Your task to perform on an android device: change the upload size in google photos Image 0: 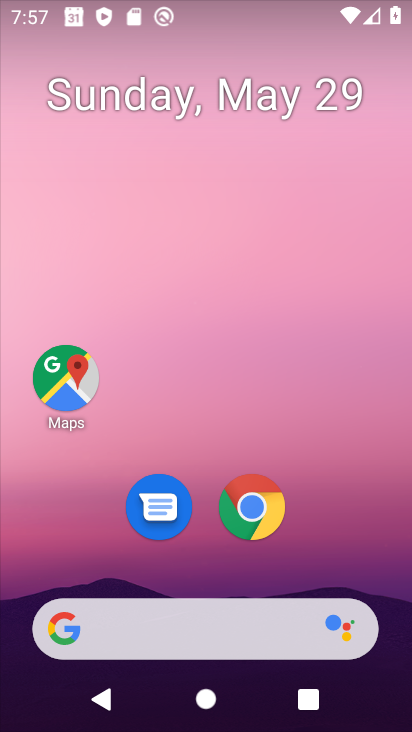
Step 0: drag from (385, 524) to (336, 80)
Your task to perform on an android device: change the upload size in google photos Image 1: 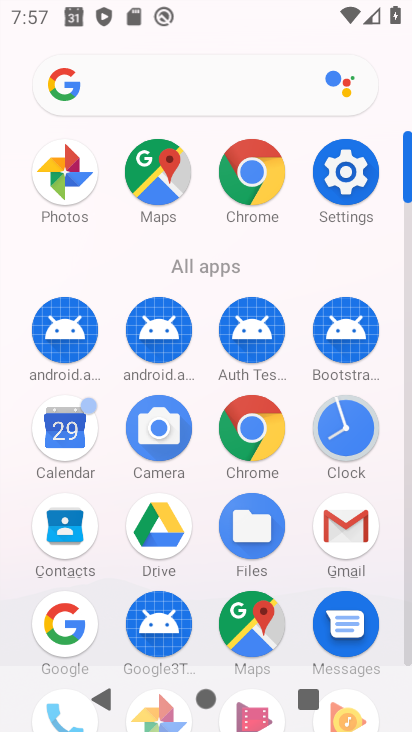
Step 1: click (68, 159)
Your task to perform on an android device: change the upload size in google photos Image 2: 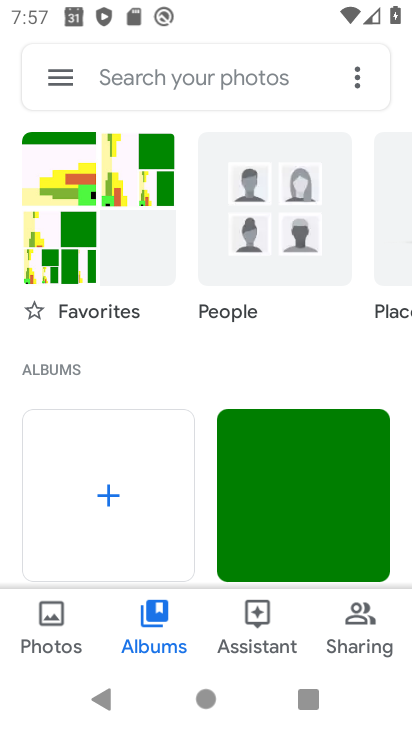
Step 2: click (45, 85)
Your task to perform on an android device: change the upload size in google photos Image 3: 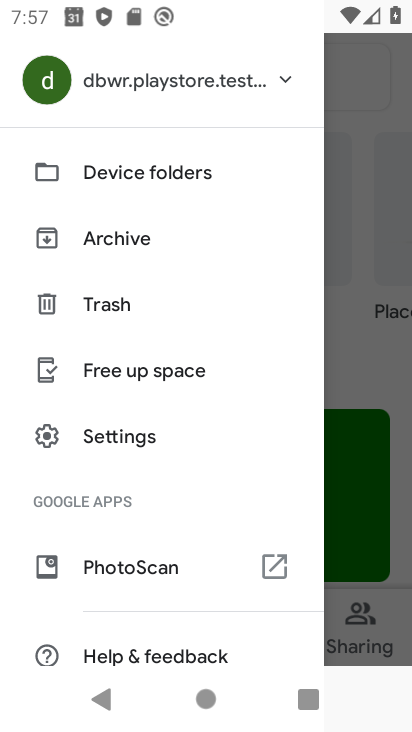
Step 3: drag from (170, 591) to (276, 192)
Your task to perform on an android device: change the upload size in google photos Image 4: 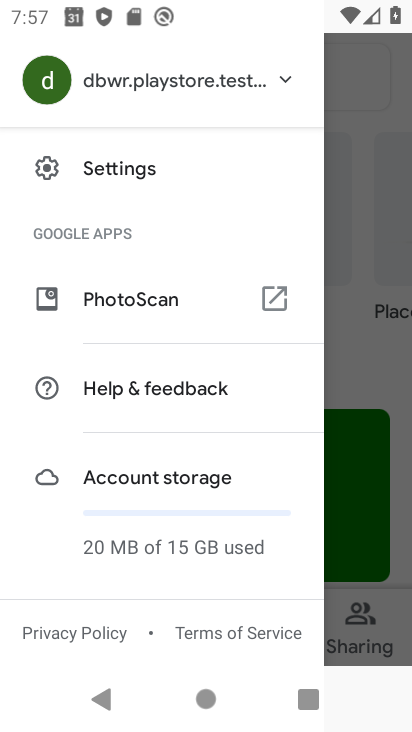
Step 4: click (142, 172)
Your task to perform on an android device: change the upload size in google photos Image 5: 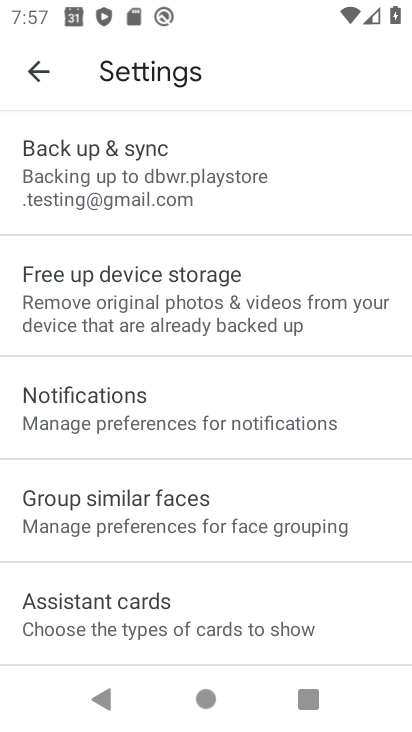
Step 5: click (220, 596)
Your task to perform on an android device: change the upload size in google photos Image 6: 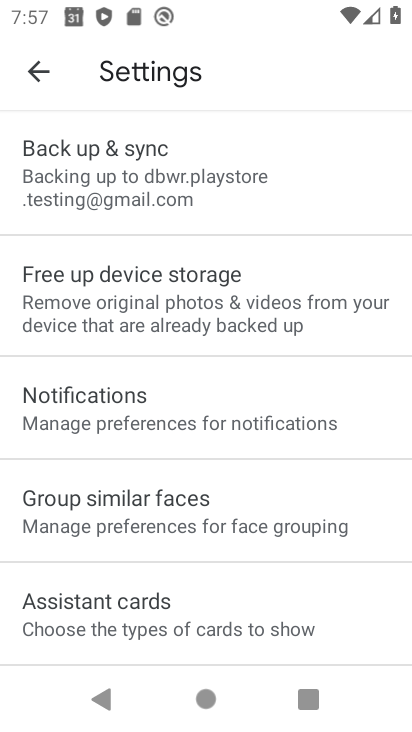
Step 6: click (216, 205)
Your task to perform on an android device: change the upload size in google photos Image 7: 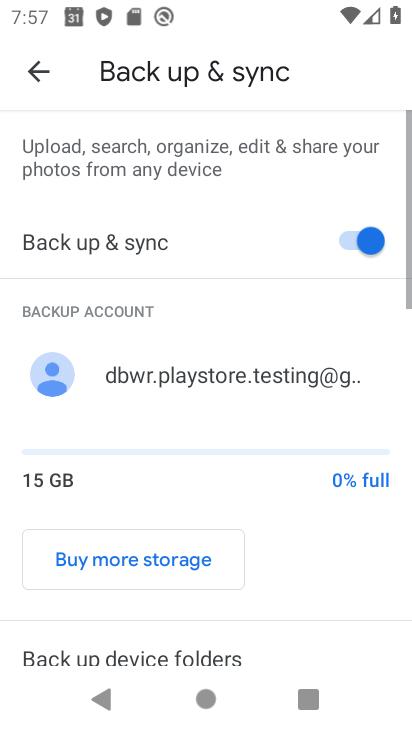
Step 7: drag from (262, 522) to (302, 95)
Your task to perform on an android device: change the upload size in google photos Image 8: 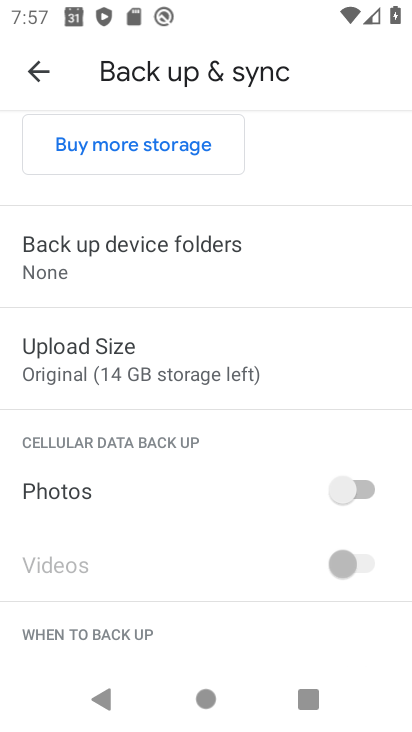
Step 8: click (164, 342)
Your task to perform on an android device: change the upload size in google photos Image 9: 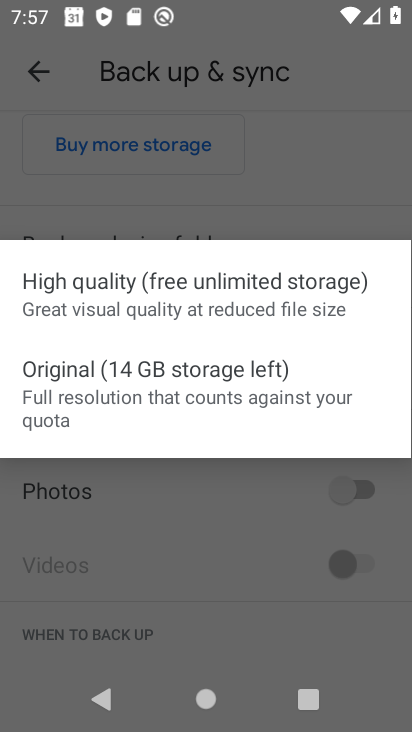
Step 9: click (179, 285)
Your task to perform on an android device: change the upload size in google photos Image 10: 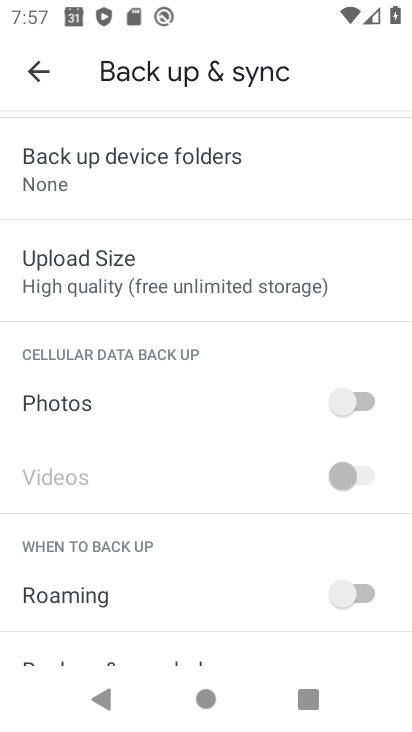
Step 10: task complete